Your task to perform on an android device: turn on showing notifications on the lock screen Image 0: 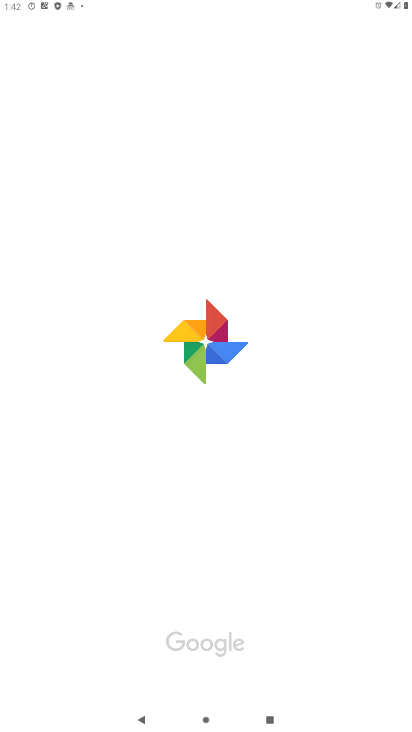
Step 0: drag from (235, 622) to (245, 491)
Your task to perform on an android device: turn on showing notifications on the lock screen Image 1: 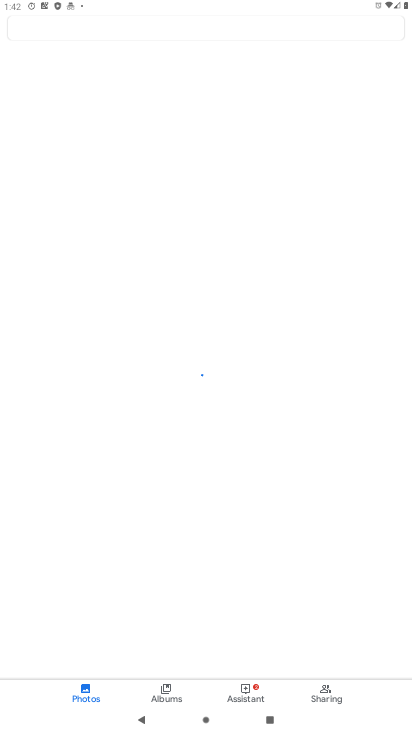
Step 1: press home button
Your task to perform on an android device: turn on showing notifications on the lock screen Image 2: 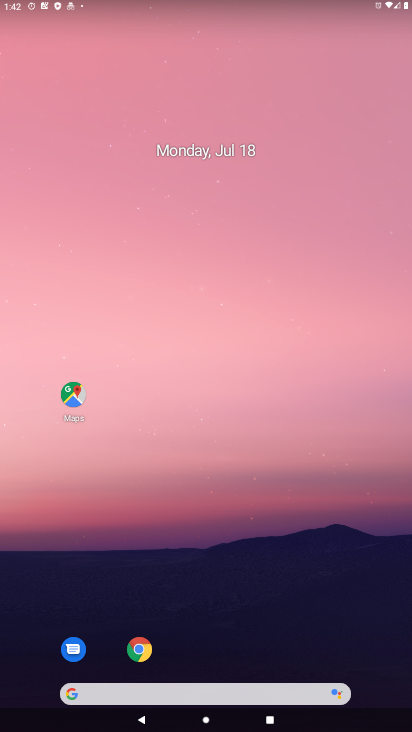
Step 2: drag from (233, 688) to (104, 102)
Your task to perform on an android device: turn on showing notifications on the lock screen Image 3: 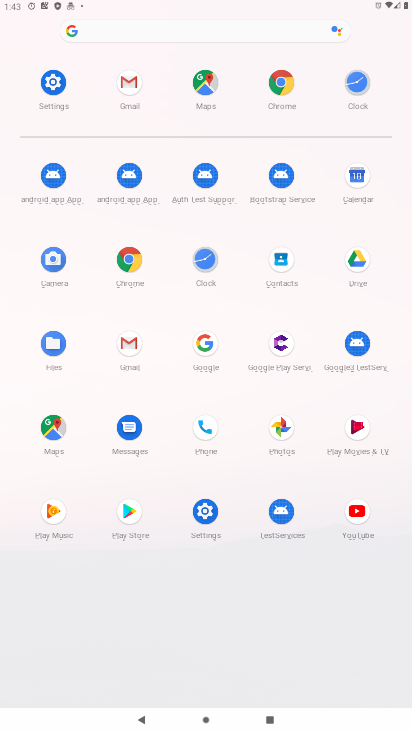
Step 3: click (44, 77)
Your task to perform on an android device: turn on showing notifications on the lock screen Image 4: 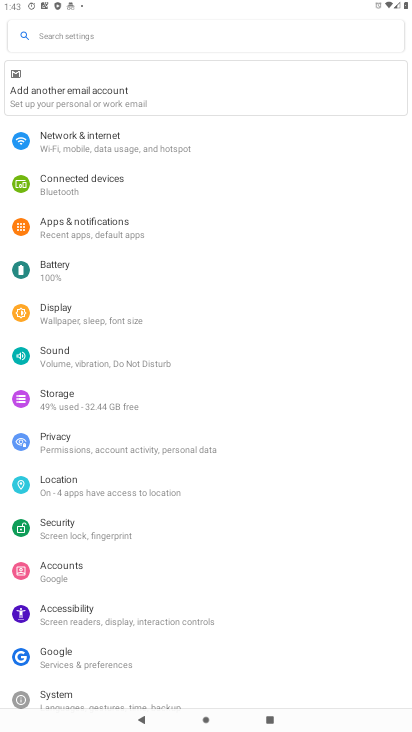
Step 4: click (67, 227)
Your task to perform on an android device: turn on showing notifications on the lock screen Image 5: 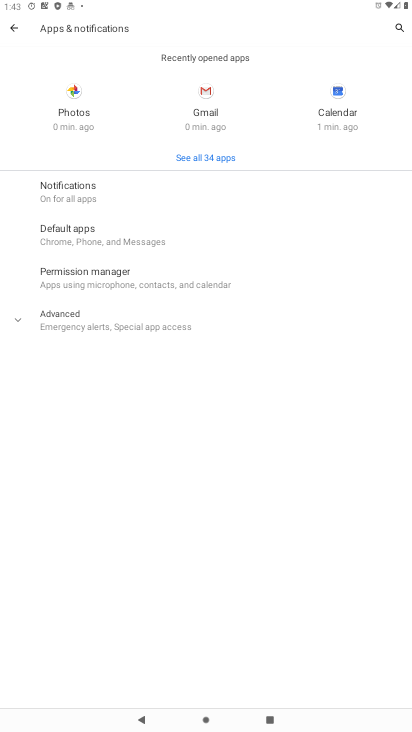
Step 5: click (58, 194)
Your task to perform on an android device: turn on showing notifications on the lock screen Image 6: 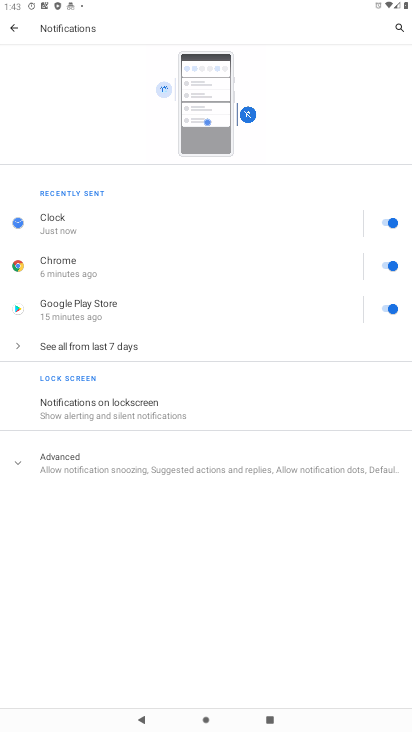
Step 6: click (142, 417)
Your task to perform on an android device: turn on showing notifications on the lock screen Image 7: 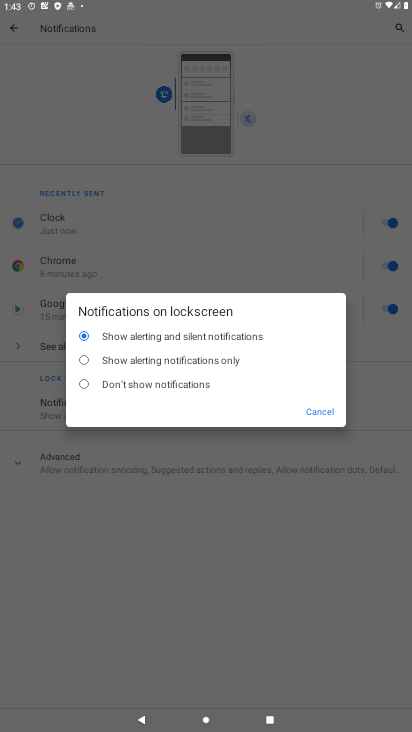
Step 7: click (100, 331)
Your task to perform on an android device: turn on showing notifications on the lock screen Image 8: 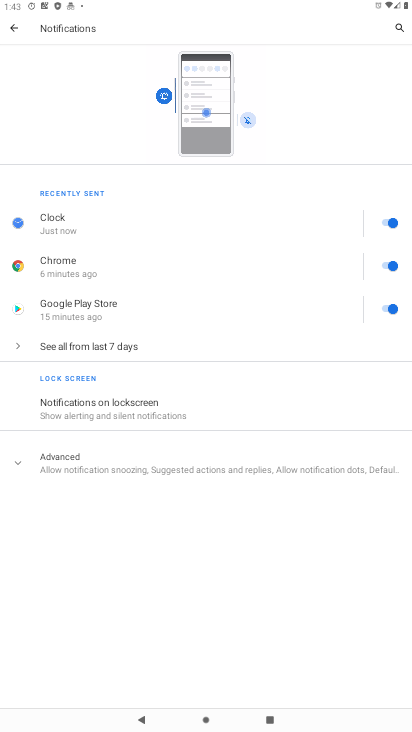
Step 8: task complete